Your task to perform on an android device: clear all cookies in the chrome app Image 0: 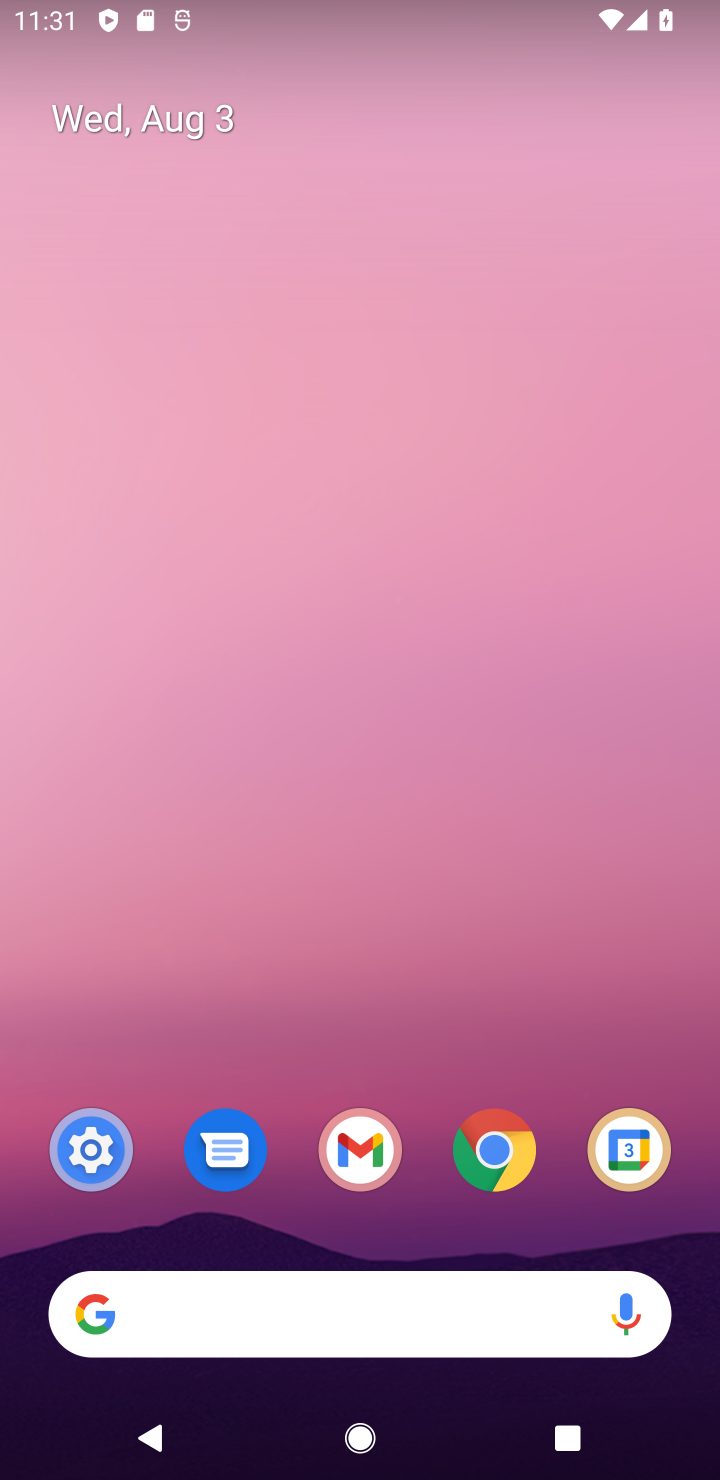
Step 0: press home button
Your task to perform on an android device: clear all cookies in the chrome app Image 1: 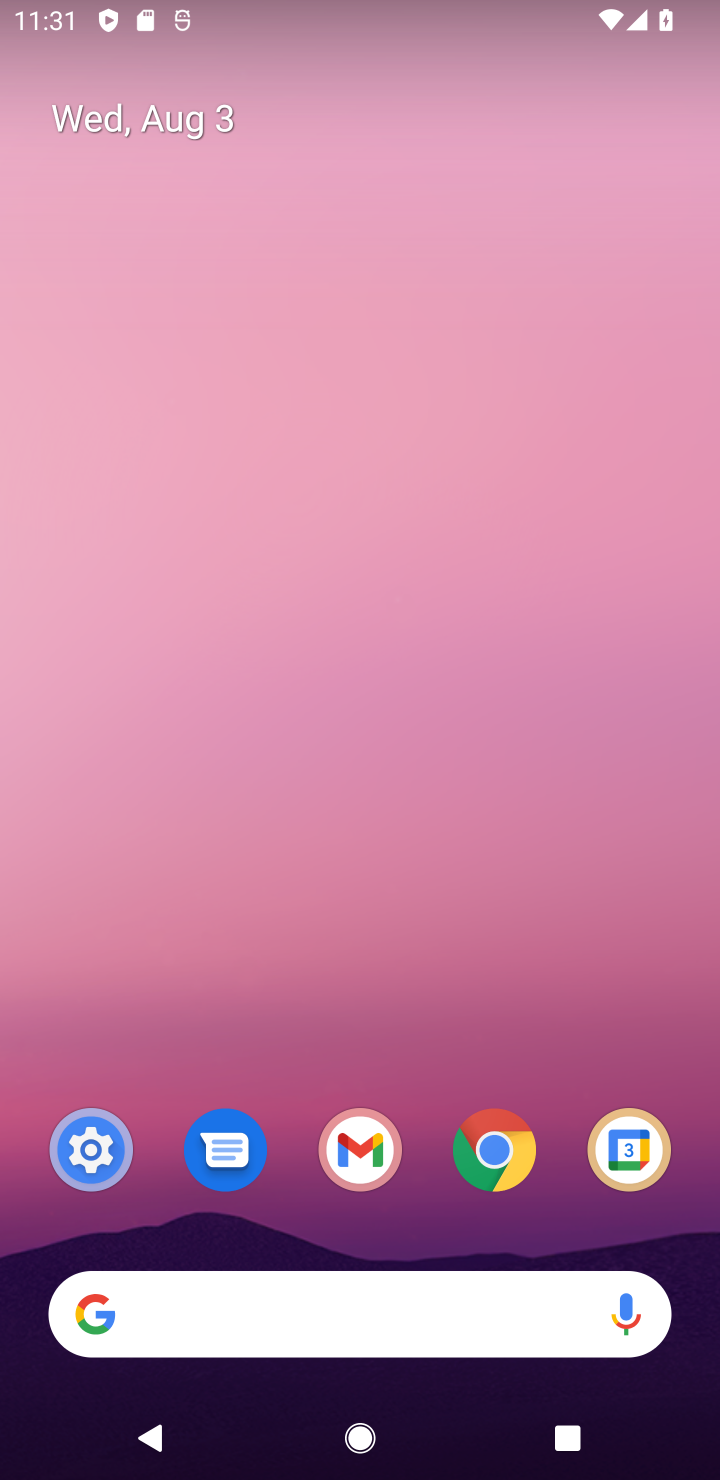
Step 1: drag from (557, 1076) to (542, 235)
Your task to perform on an android device: clear all cookies in the chrome app Image 2: 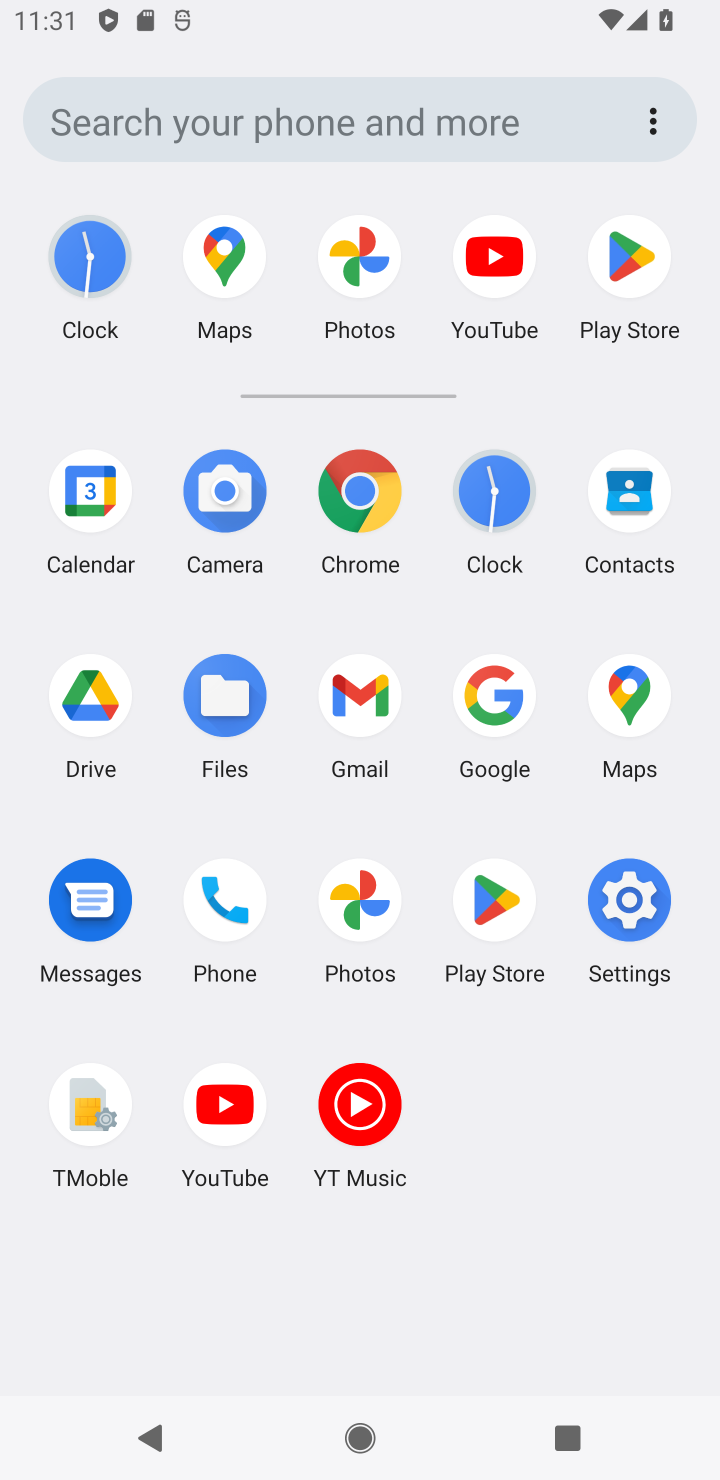
Step 2: click (363, 492)
Your task to perform on an android device: clear all cookies in the chrome app Image 3: 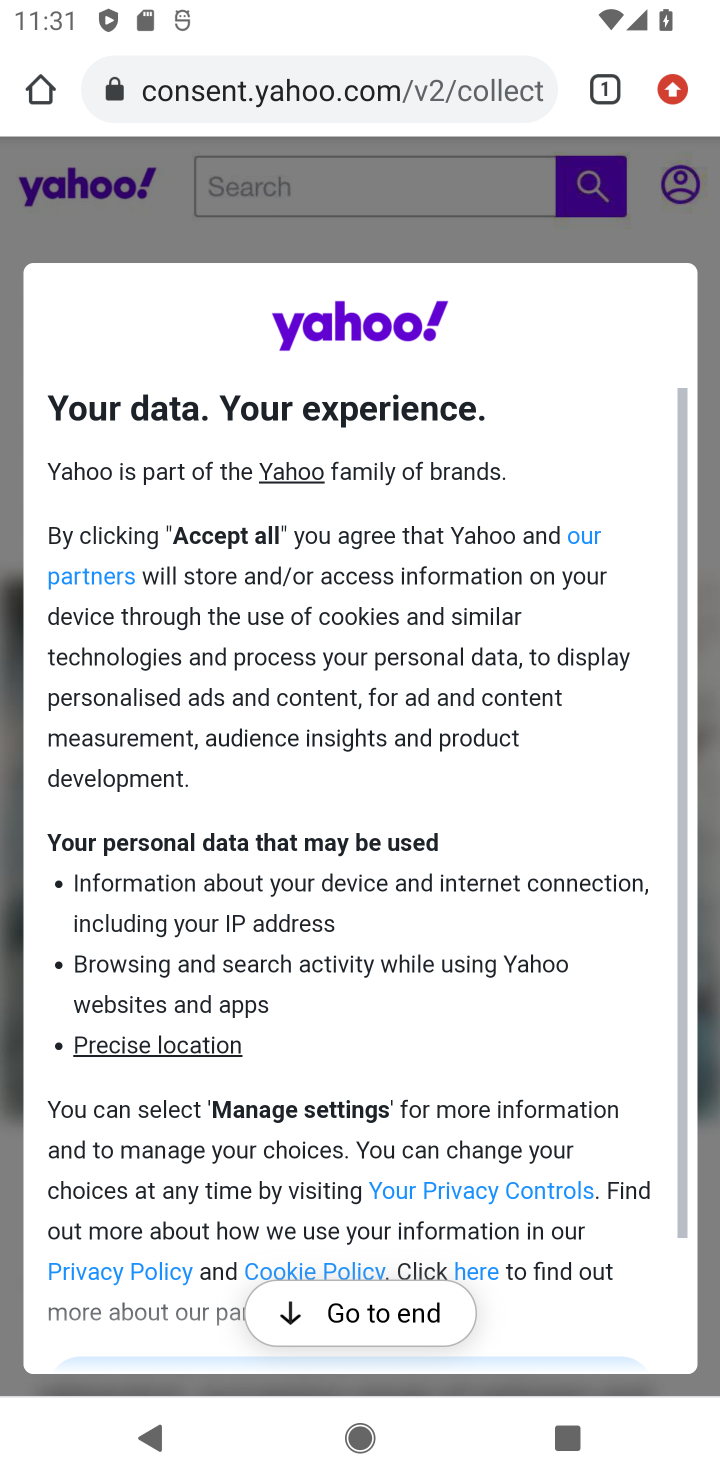
Step 3: click (669, 87)
Your task to perform on an android device: clear all cookies in the chrome app Image 4: 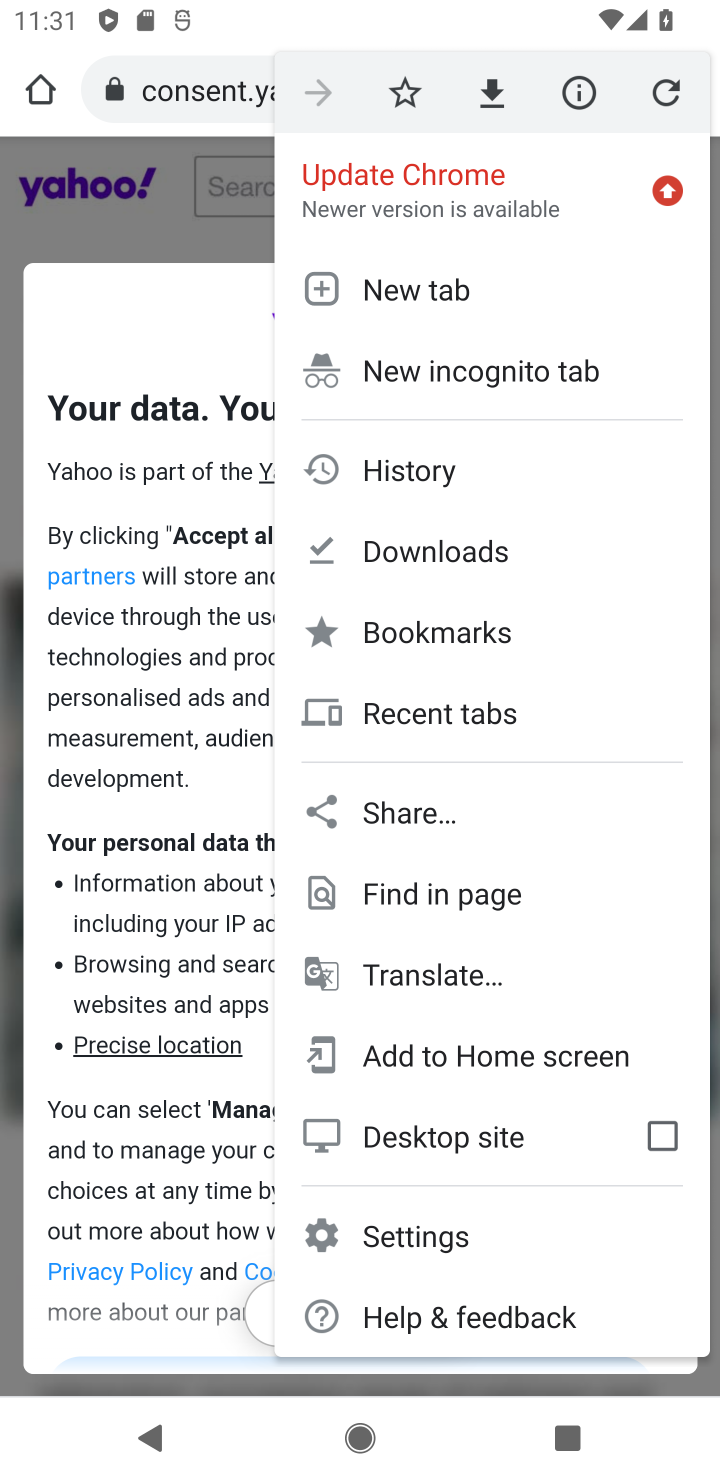
Step 4: drag from (564, 953) to (586, 676)
Your task to perform on an android device: clear all cookies in the chrome app Image 5: 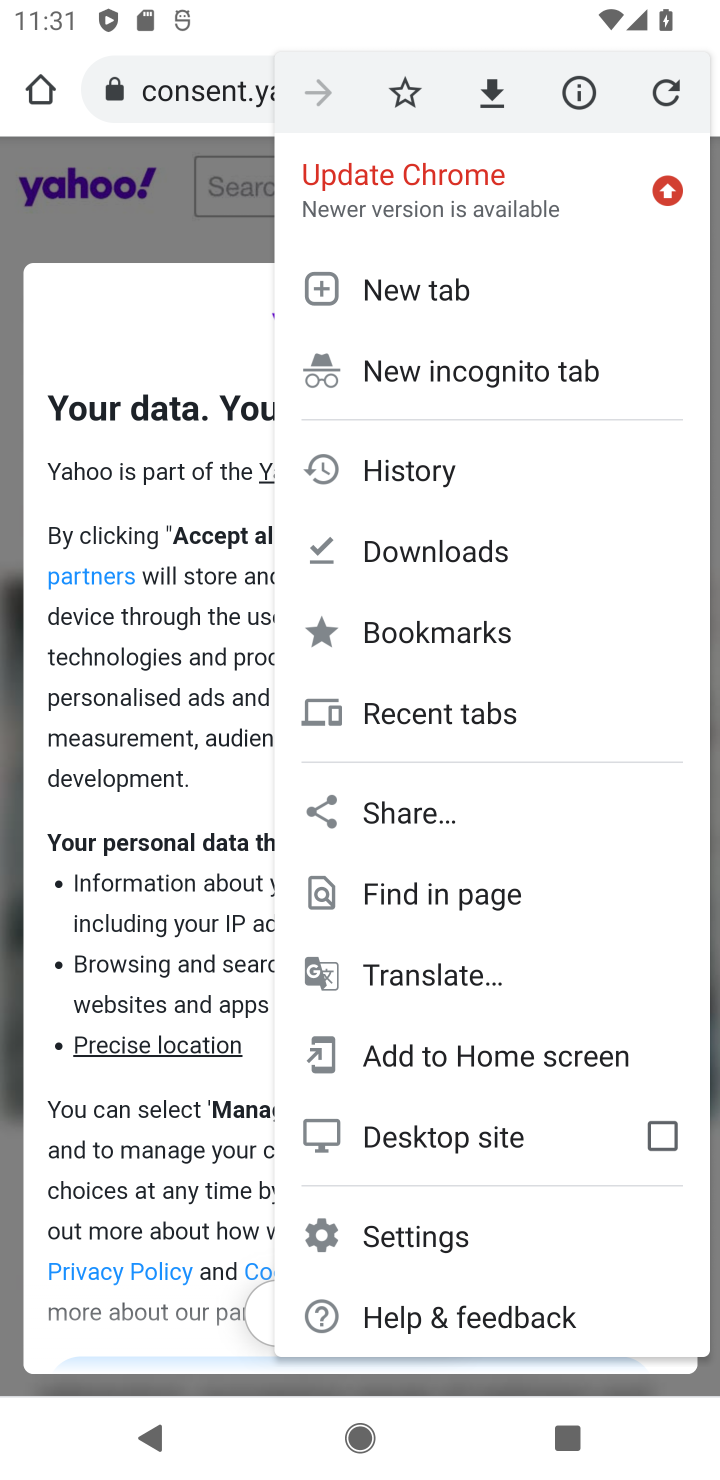
Step 5: click (435, 1240)
Your task to perform on an android device: clear all cookies in the chrome app Image 6: 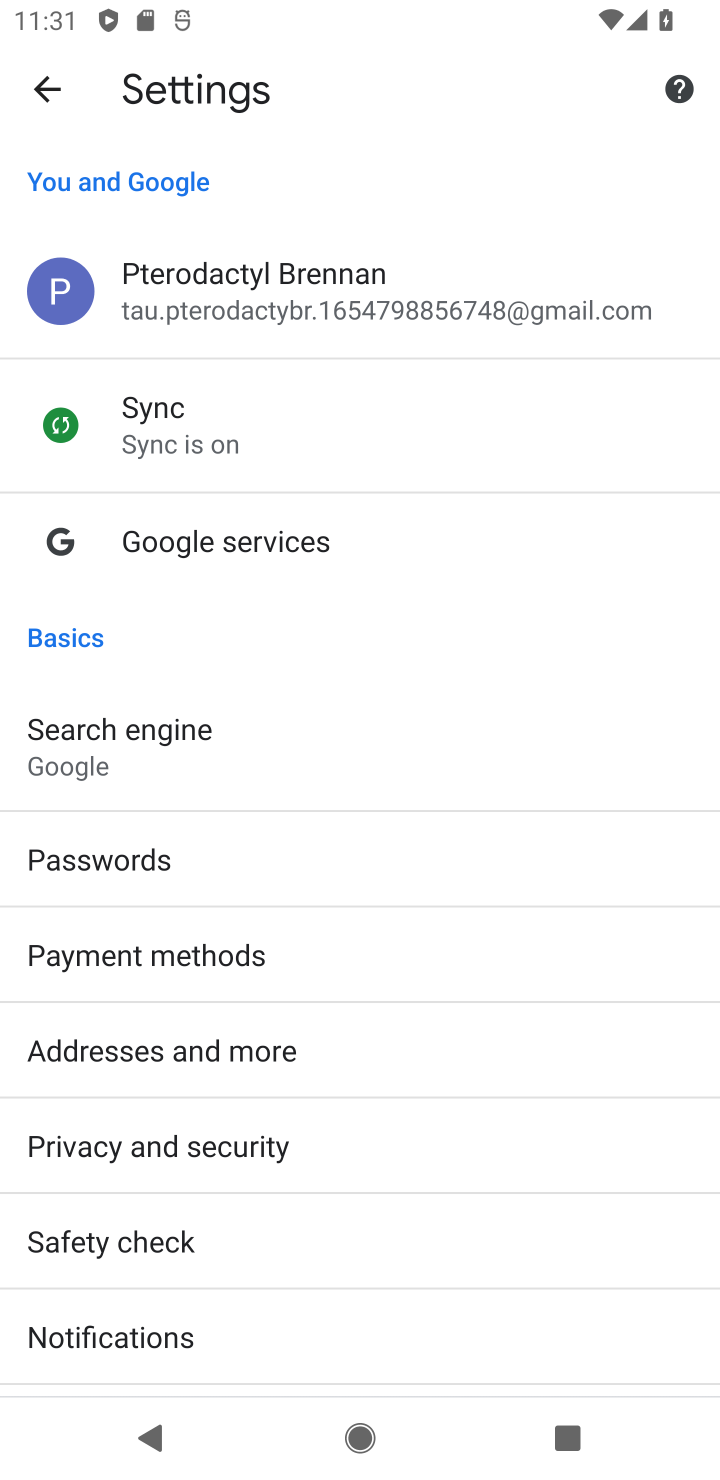
Step 6: drag from (502, 1135) to (532, 874)
Your task to perform on an android device: clear all cookies in the chrome app Image 7: 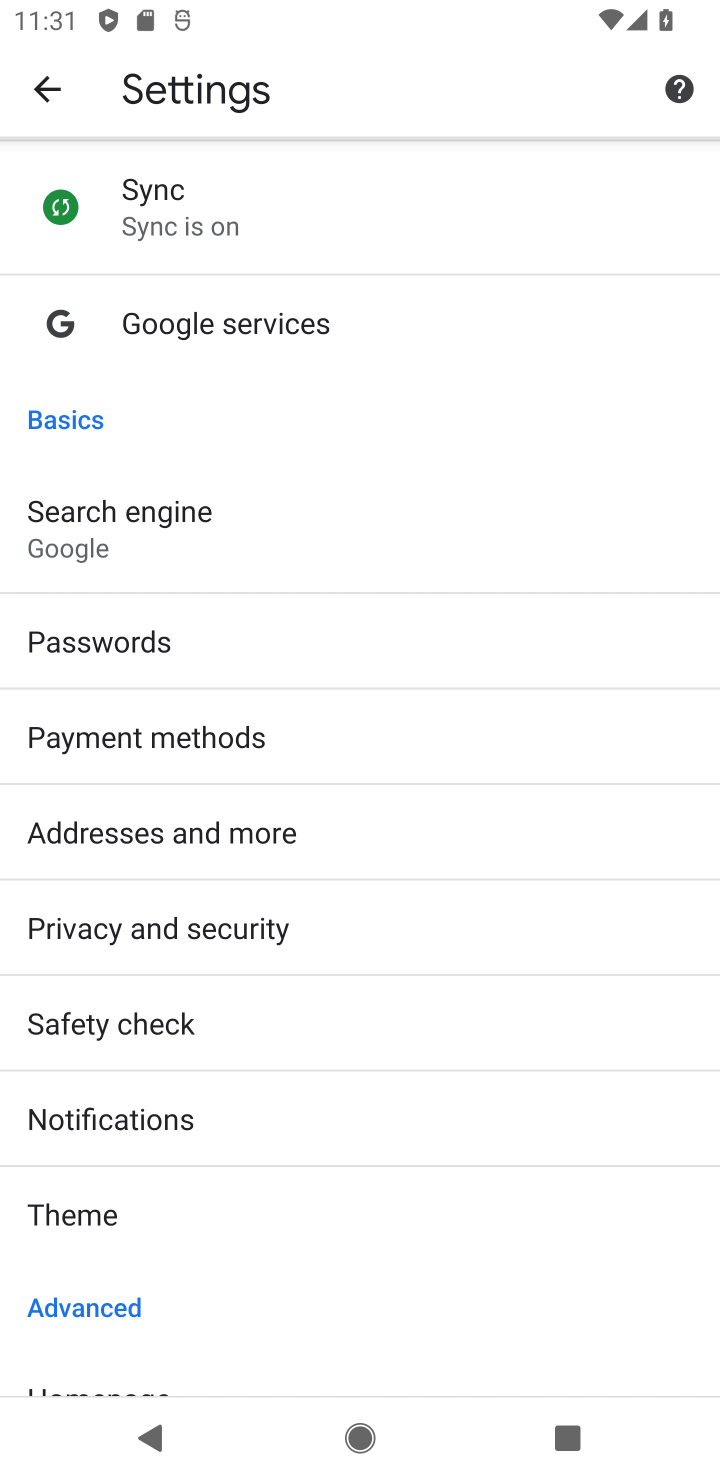
Step 7: drag from (528, 1212) to (541, 849)
Your task to perform on an android device: clear all cookies in the chrome app Image 8: 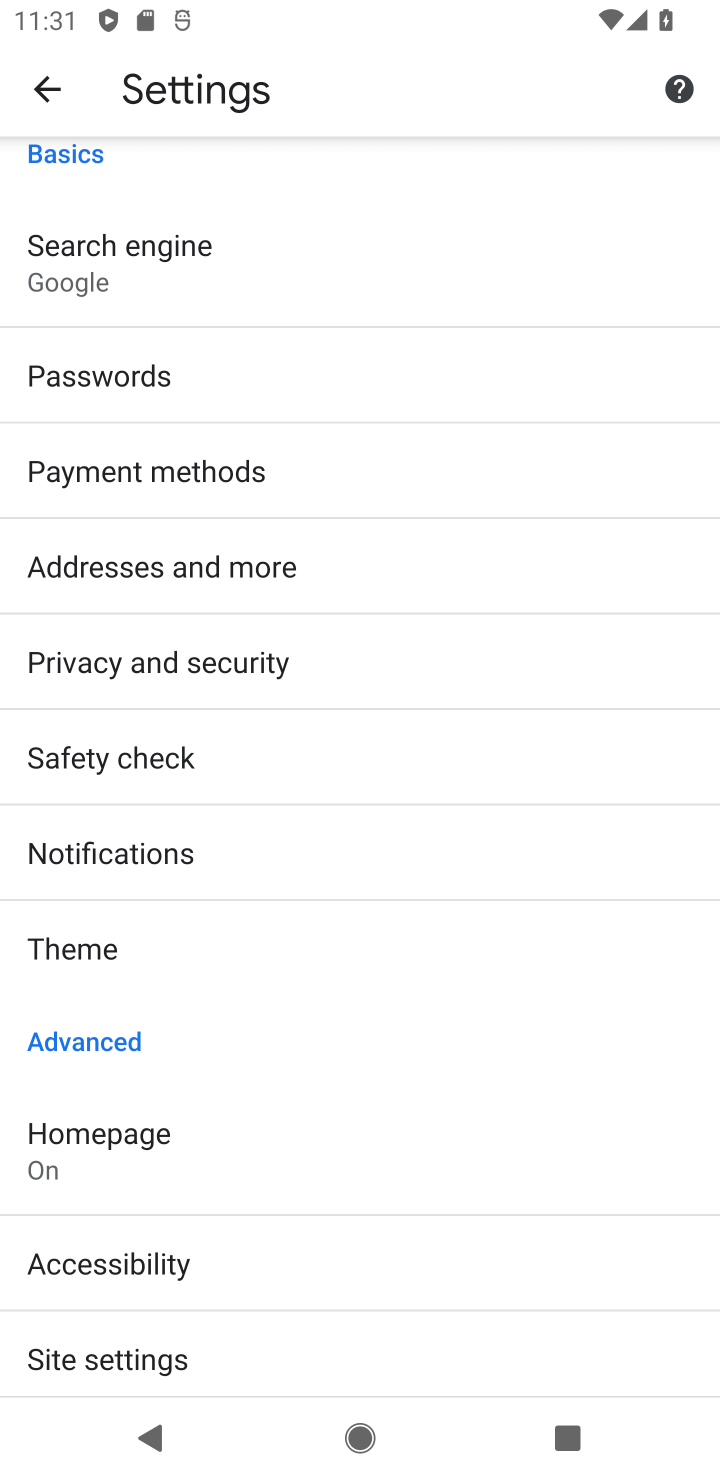
Step 8: drag from (500, 1219) to (520, 885)
Your task to perform on an android device: clear all cookies in the chrome app Image 9: 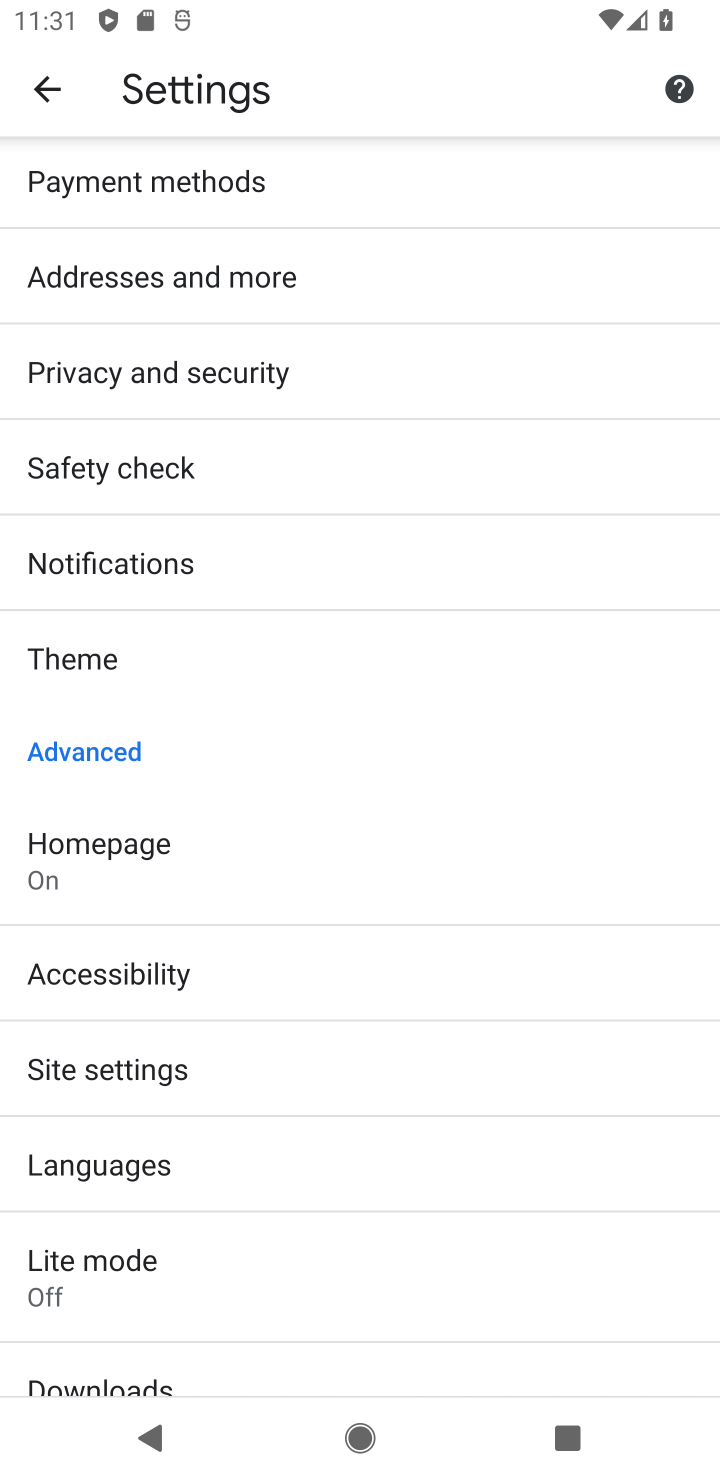
Step 9: drag from (495, 1242) to (542, 870)
Your task to perform on an android device: clear all cookies in the chrome app Image 10: 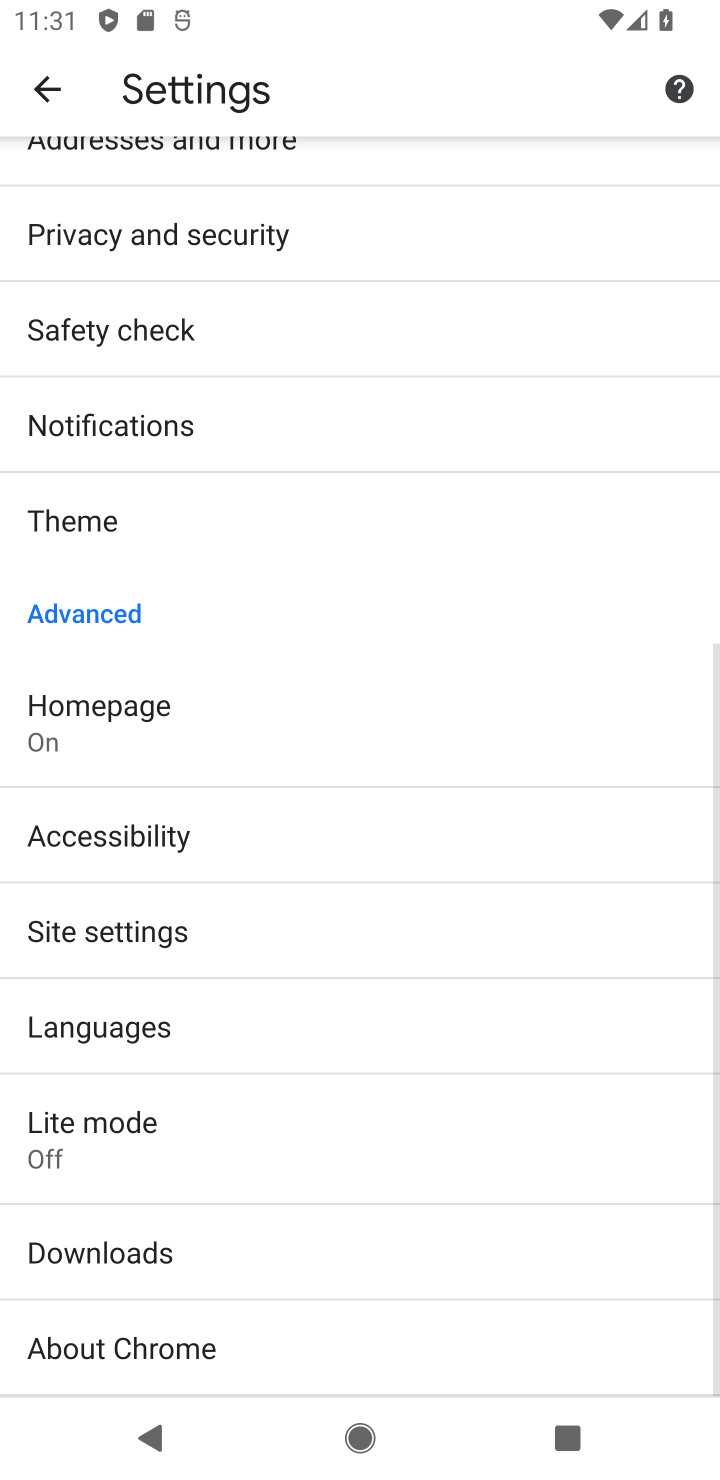
Step 10: drag from (555, 653) to (555, 912)
Your task to perform on an android device: clear all cookies in the chrome app Image 11: 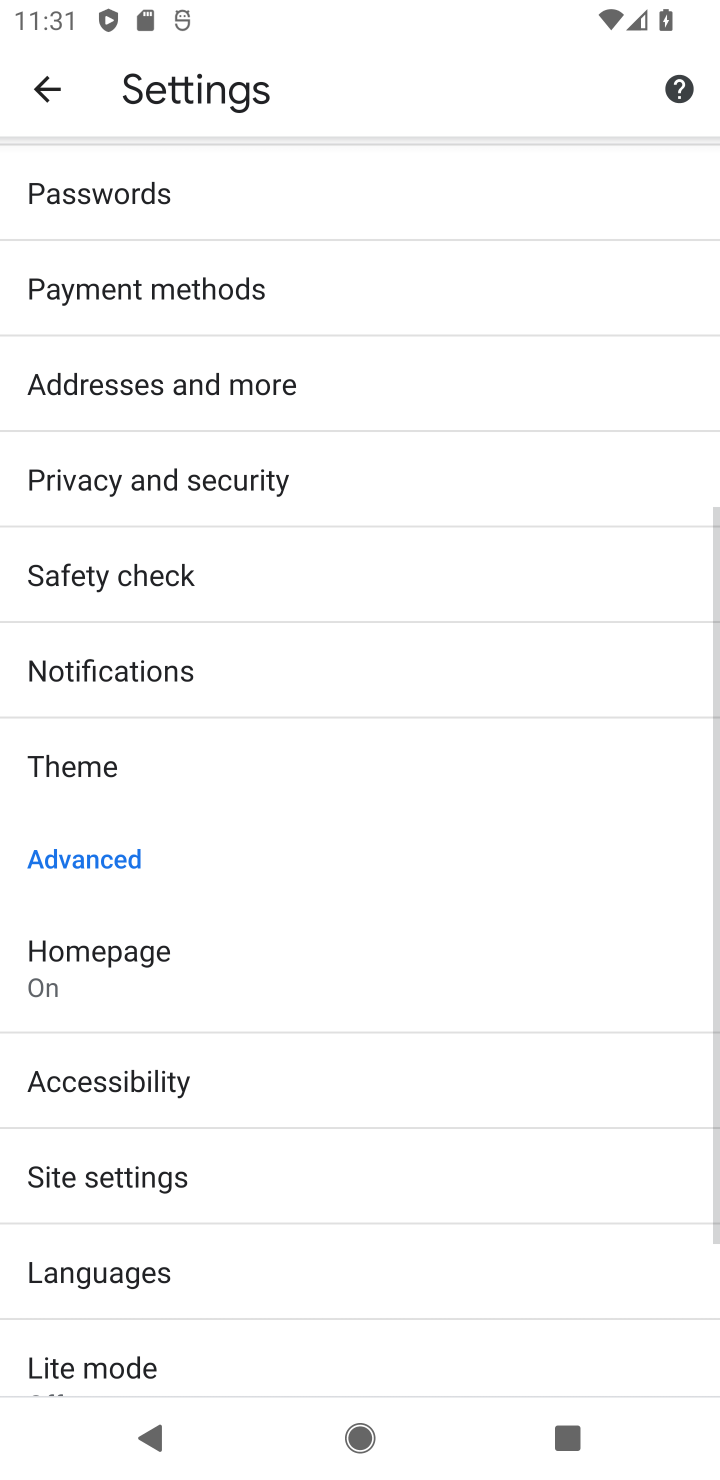
Step 11: drag from (555, 738) to (553, 1009)
Your task to perform on an android device: clear all cookies in the chrome app Image 12: 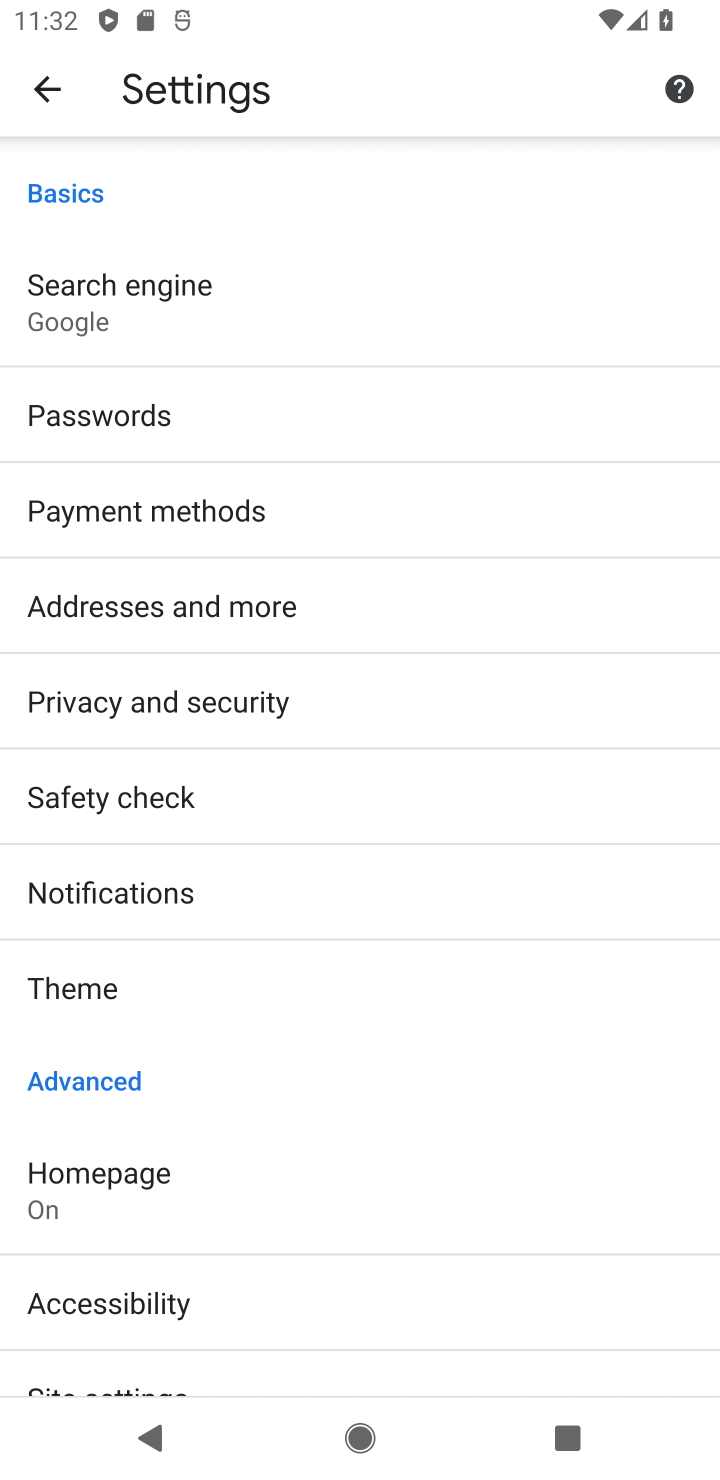
Step 12: drag from (517, 784) to (517, 1017)
Your task to perform on an android device: clear all cookies in the chrome app Image 13: 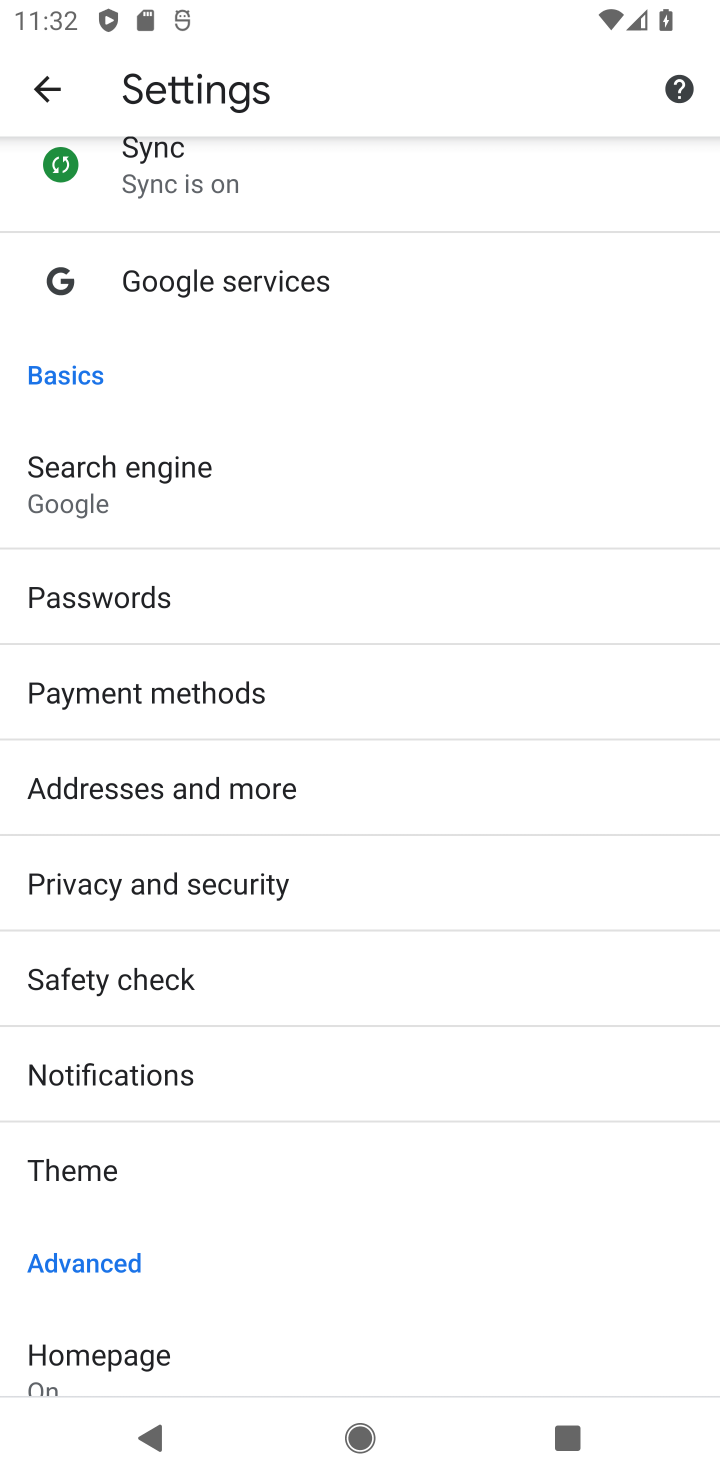
Step 13: click (515, 886)
Your task to perform on an android device: clear all cookies in the chrome app Image 14: 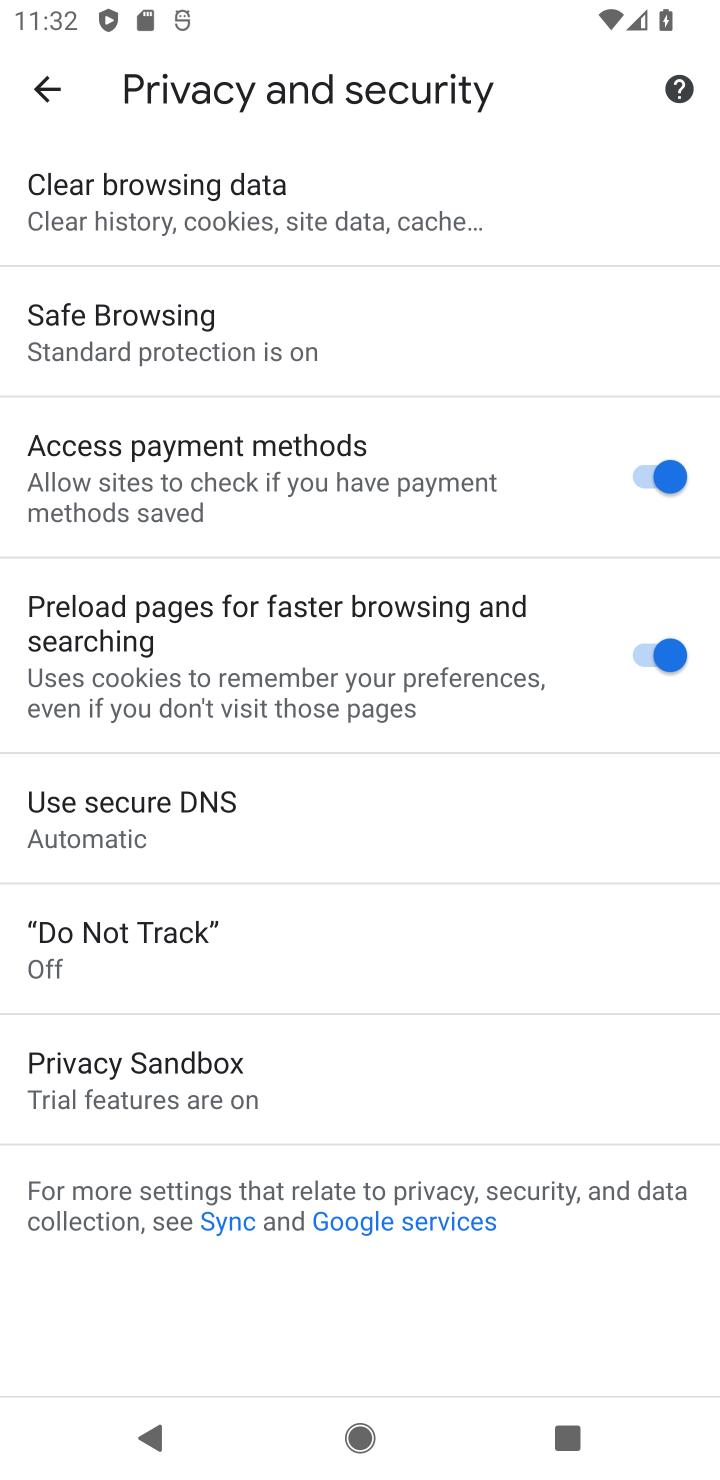
Step 14: click (386, 215)
Your task to perform on an android device: clear all cookies in the chrome app Image 15: 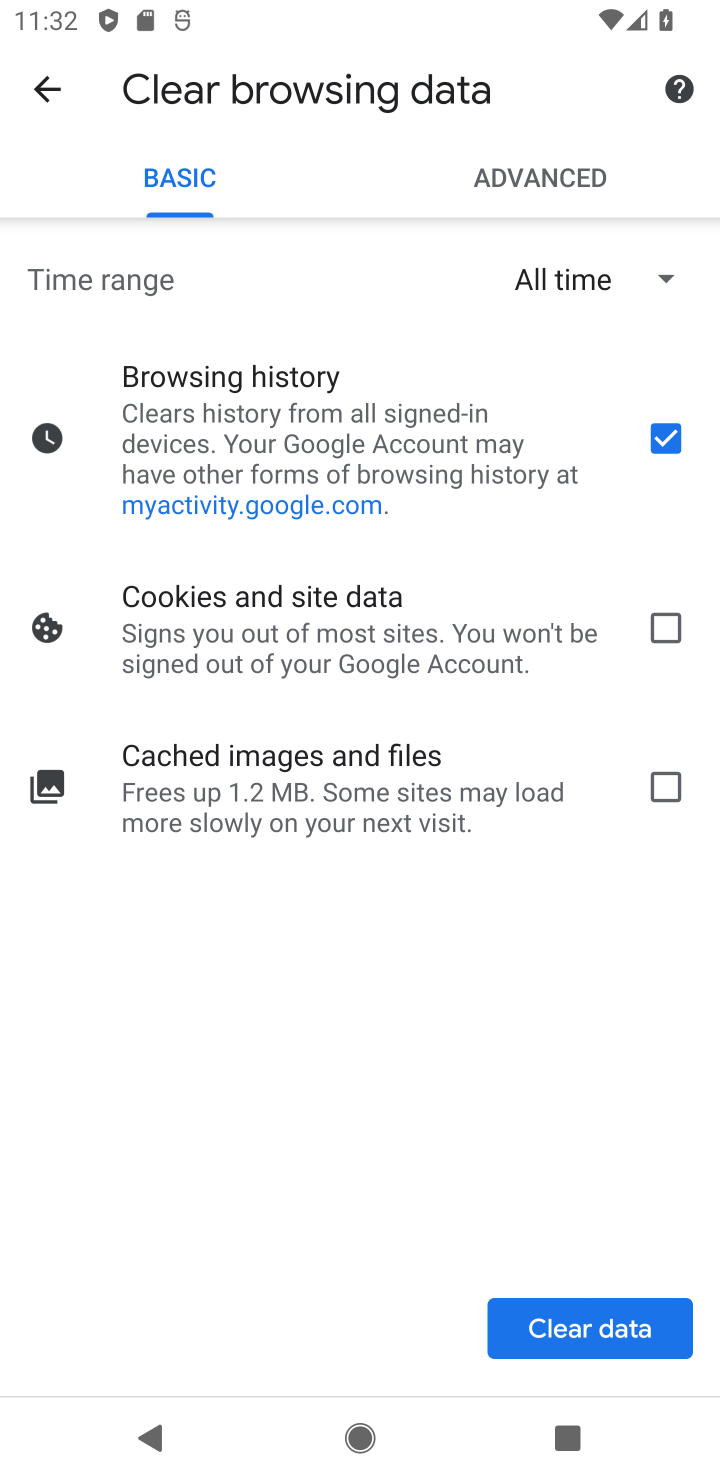
Step 15: click (670, 621)
Your task to perform on an android device: clear all cookies in the chrome app Image 16: 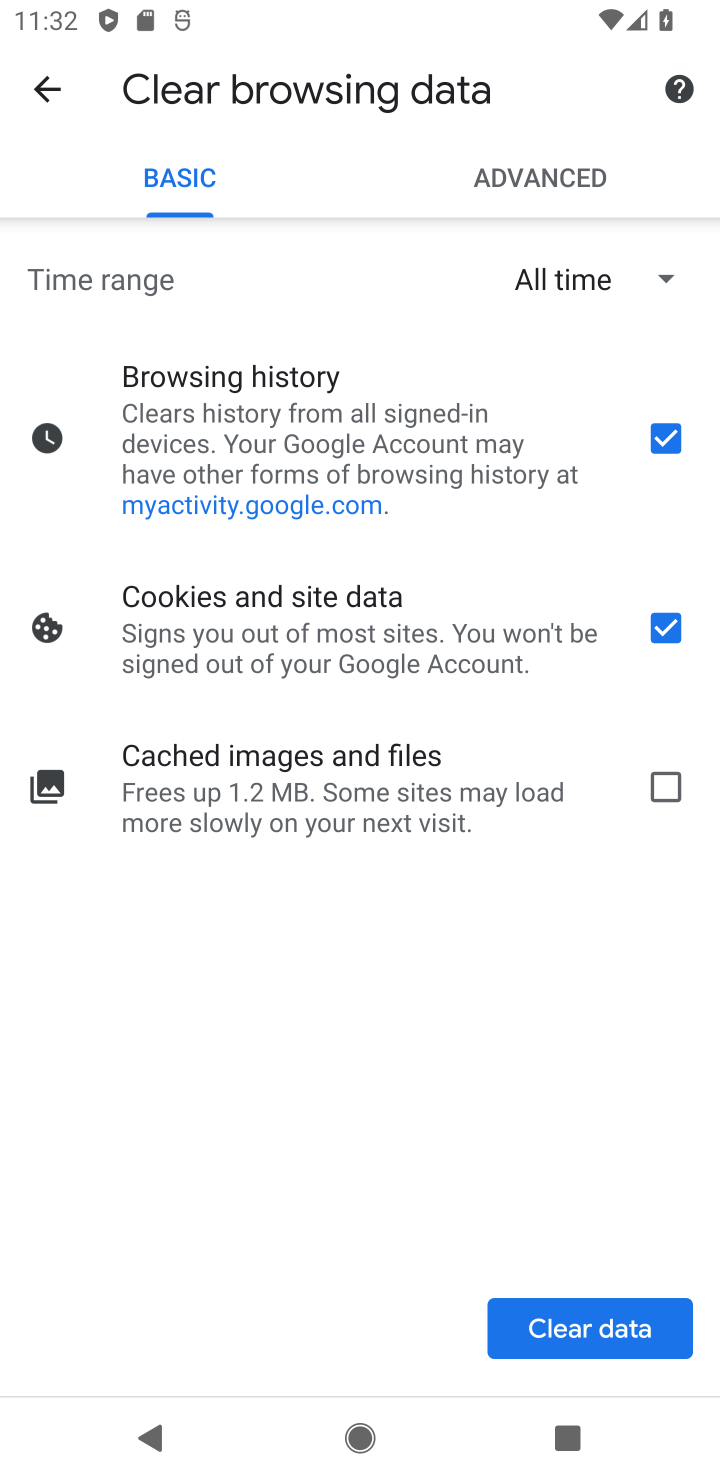
Step 16: click (675, 794)
Your task to perform on an android device: clear all cookies in the chrome app Image 17: 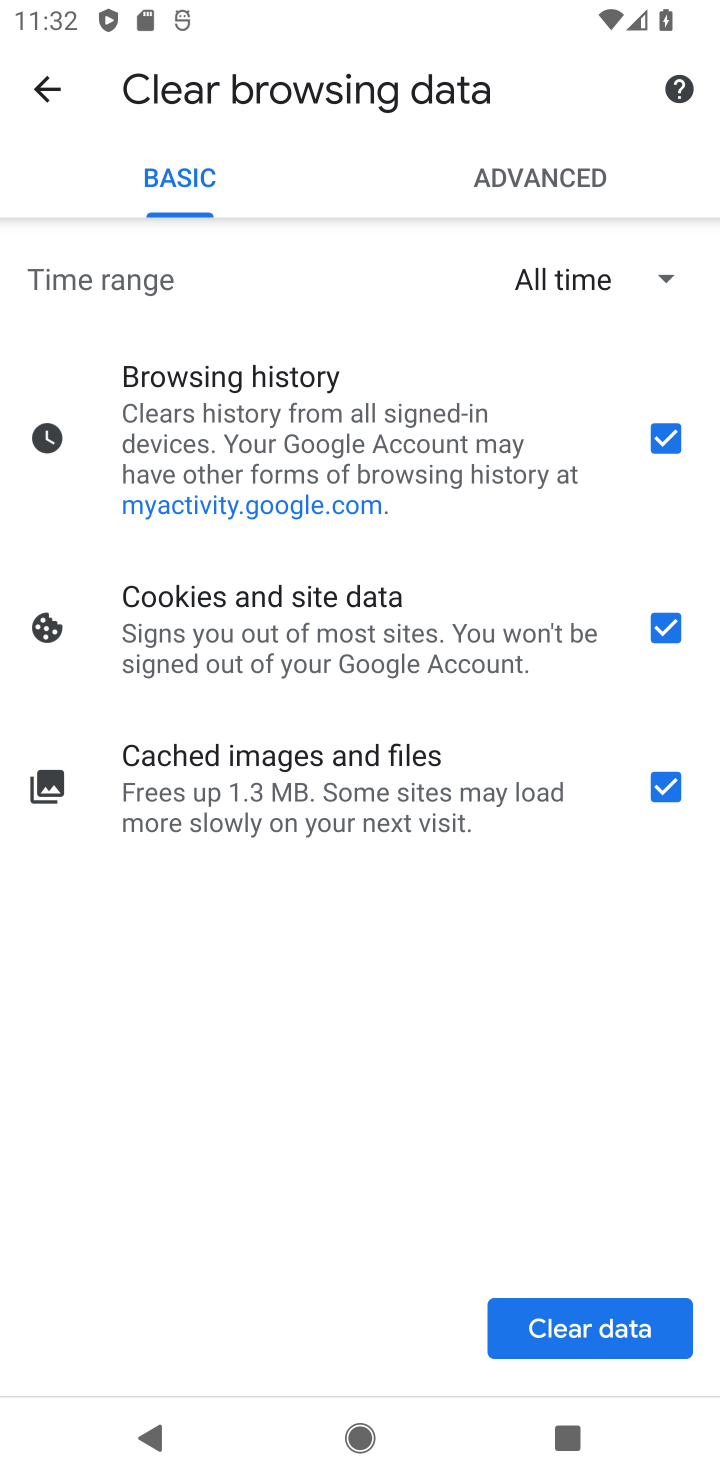
Step 17: click (584, 1327)
Your task to perform on an android device: clear all cookies in the chrome app Image 18: 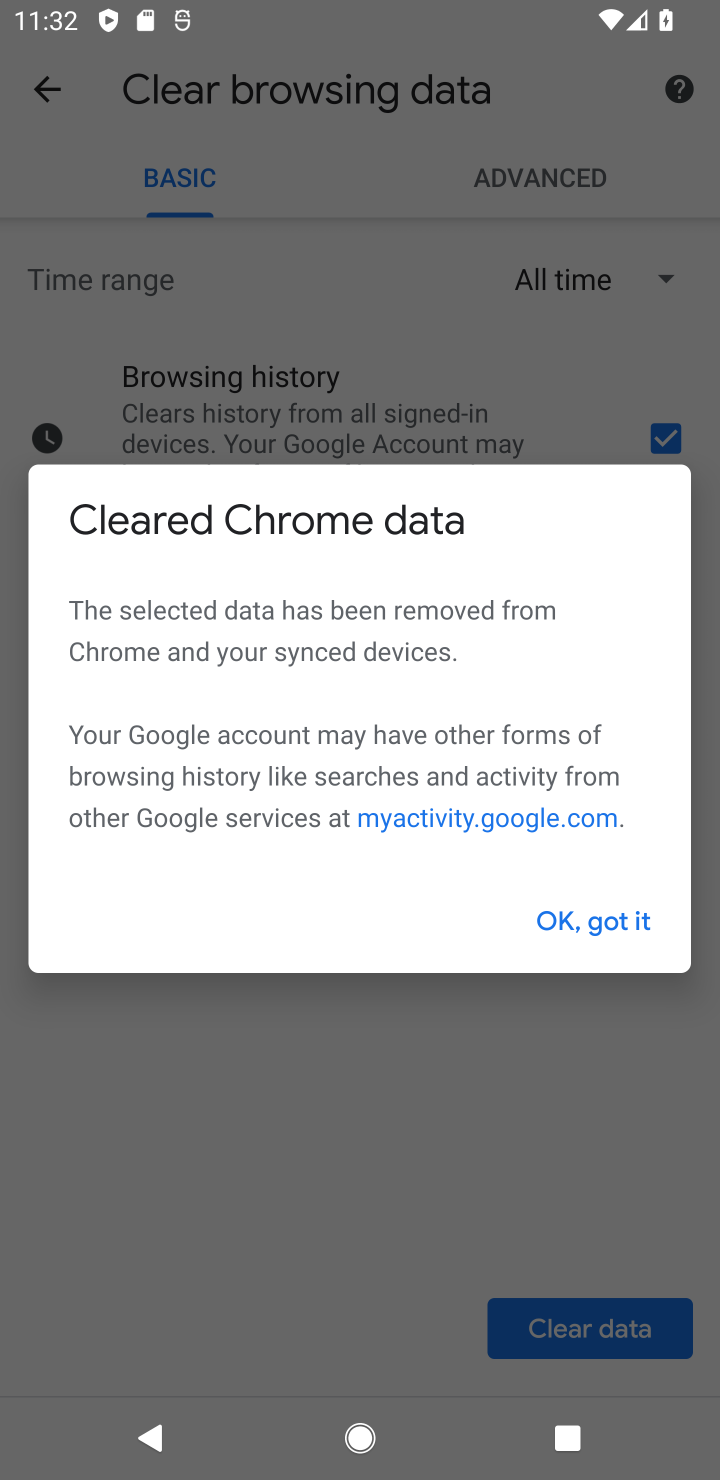
Step 18: click (624, 919)
Your task to perform on an android device: clear all cookies in the chrome app Image 19: 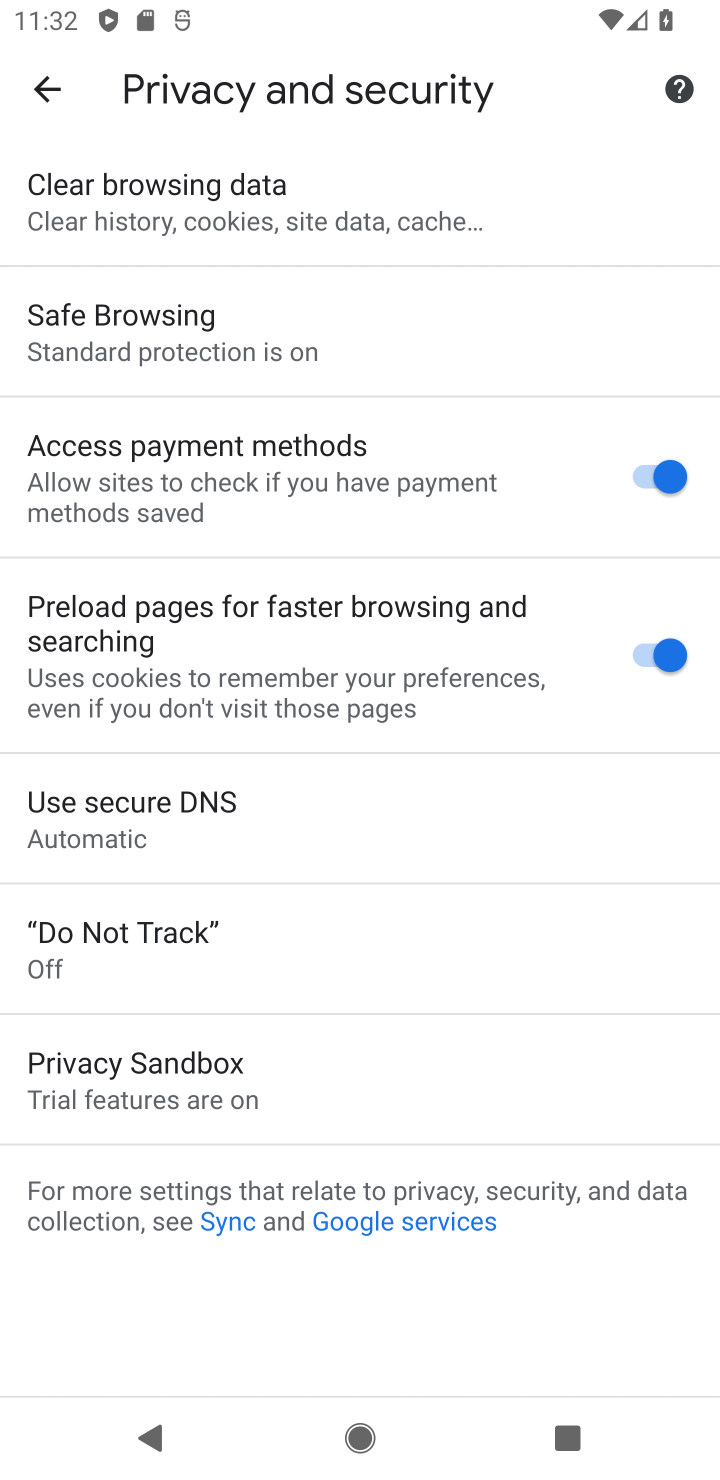
Step 19: task complete